Your task to perform on an android device: check data usage Image 0: 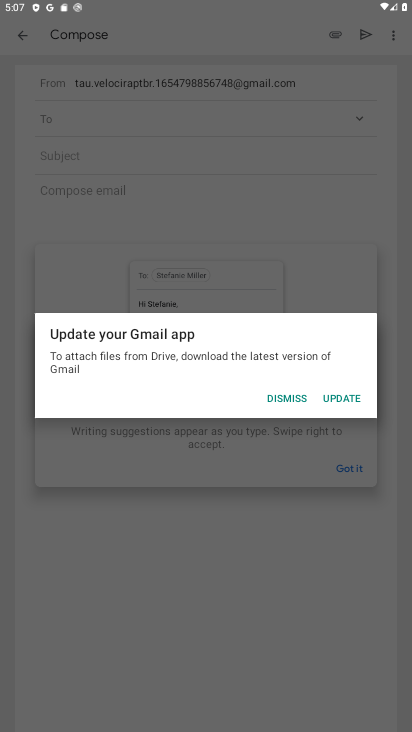
Step 0: drag from (209, 673) to (213, 135)
Your task to perform on an android device: check data usage Image 1: 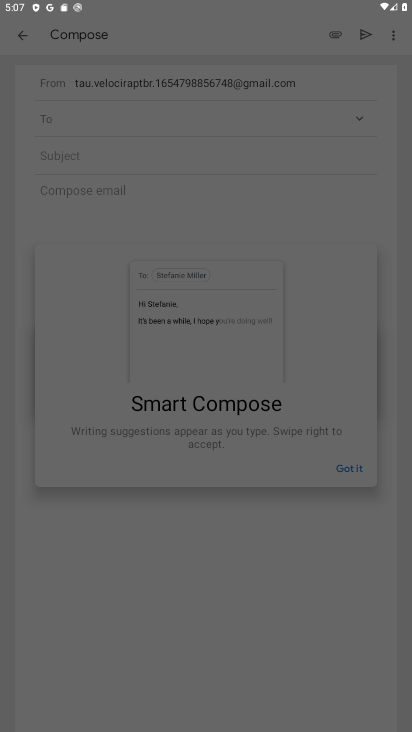
Step 1: press home button
Your task to perform on an android device: check data usage Image 2: 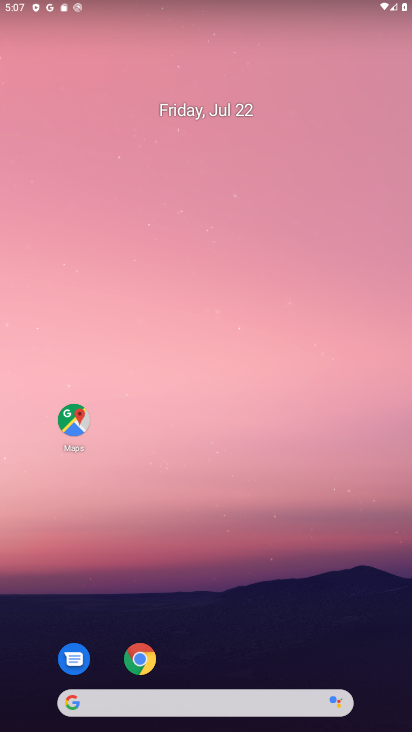
Step 2: drag from (229, 621) to (263, 31)
Your task to perform on an android device: check data usage Image 3: 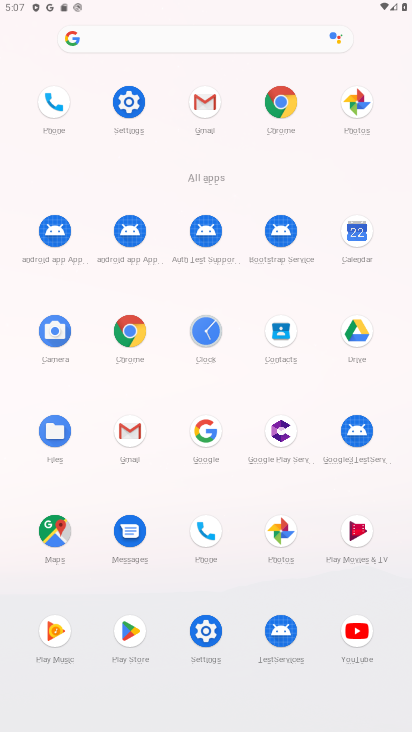
Step 3: click (121, 99)
Your task to perform on an android device: check data usage Image 4: 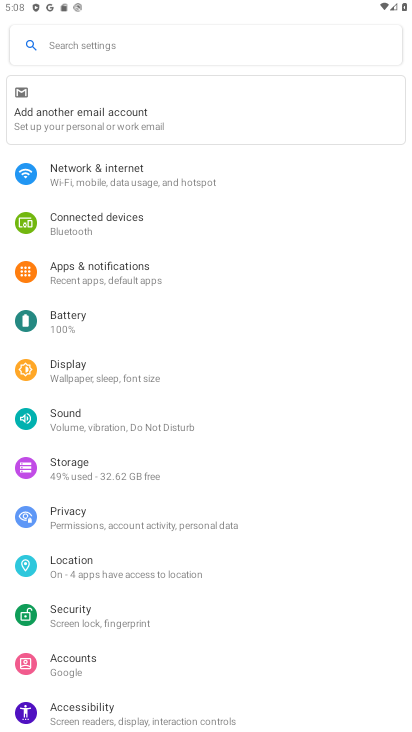
Step 4: click (124, 175)
Your task to perform on an android device: check data usage Image 5: 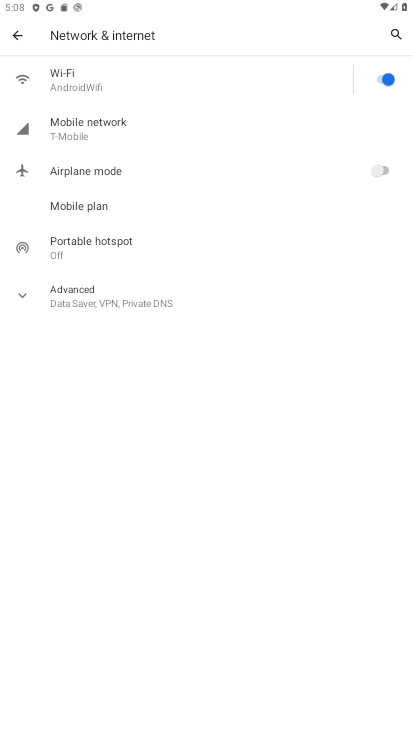
Step 5: click (96, 126)
Your task to perform on an android device: check data usage Image 6: 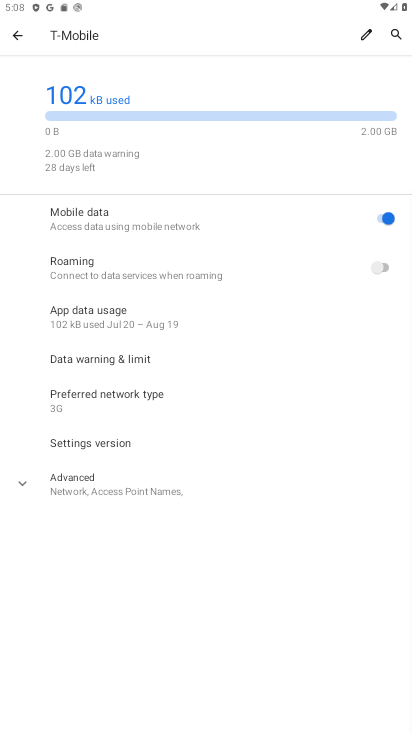
Step 6: click (130, 309)
Your task to perform on an android device: check data usage Image 7: 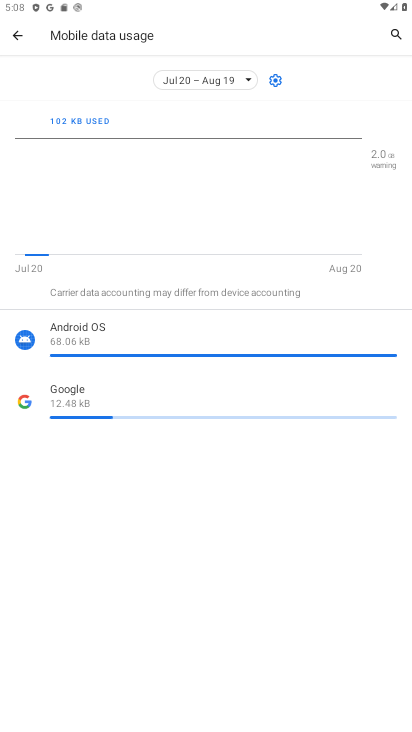
Step 7: task complete